Your task to perform on an android device: Open display settings Image 0: 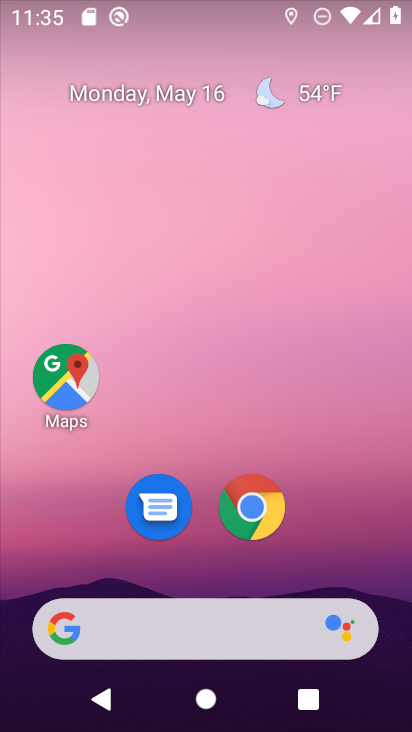
Step 0: drag from (373, 561) to (299, 225)
Your task to perform on an android device: Open display settings Image 1: 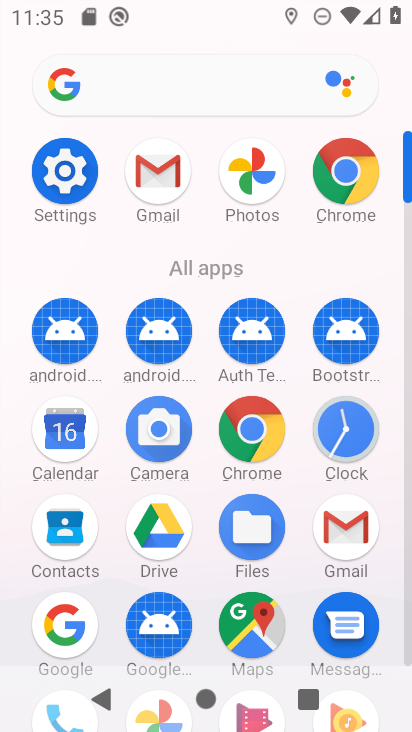
Step 1: click (53, 169)
Your task to perform on an android device: Open display settings Image 2: 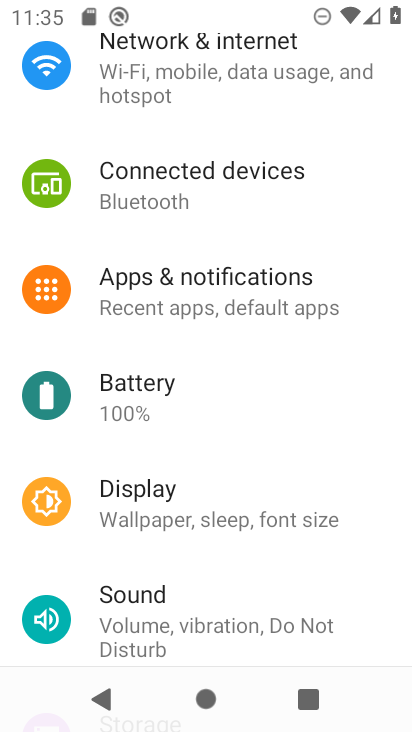
Step 2: click (171, 493)
Your task to perform on an android device: Open display settings Image 3: 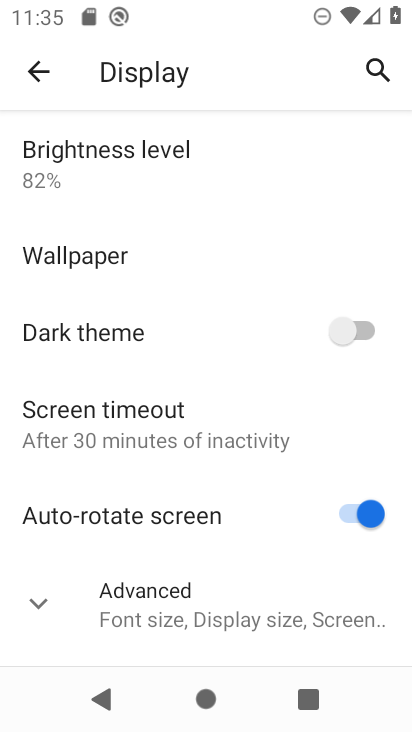
Step 3: click (220, 610)
Your task to perform on an android device: Open display settings Image 4: 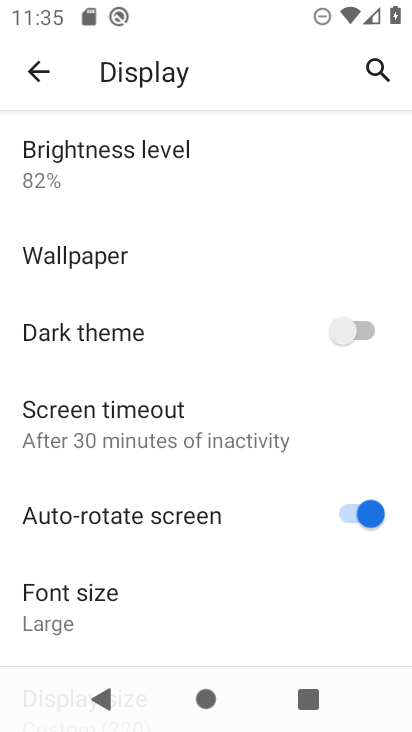
Step 4: task complete